Your task to perform on an android device: Open Android settings Image 0: 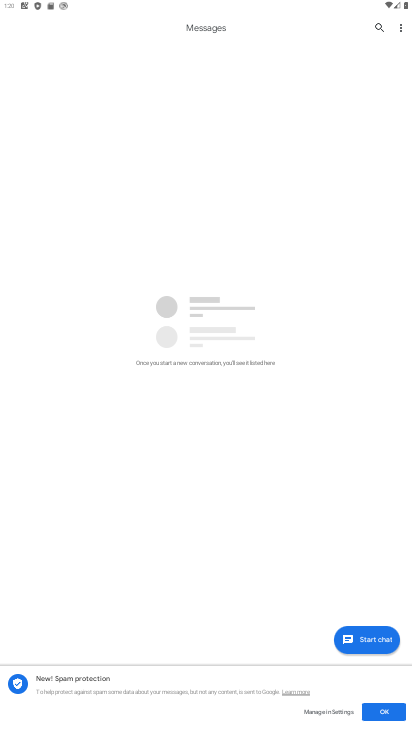
Step 0: press home button
Your task to perform on an android device: Open Android settings Image 1: 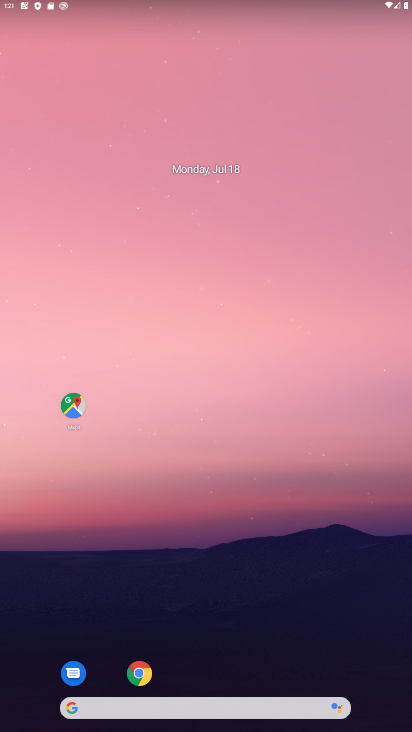
Step 1: drag from (393, 713) to (301, 10)
Your task to perform on an android device: Open Android settings Image 2: 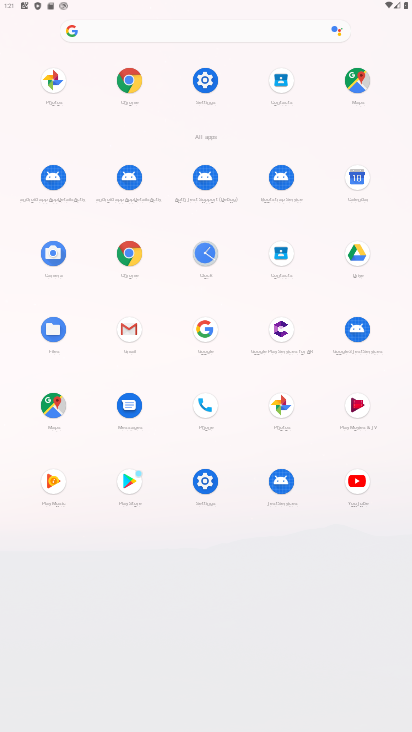
Step 2: drag from (203, 79) to (151, 354)
Your task to perform on an android device: Open Android settings Image 3: 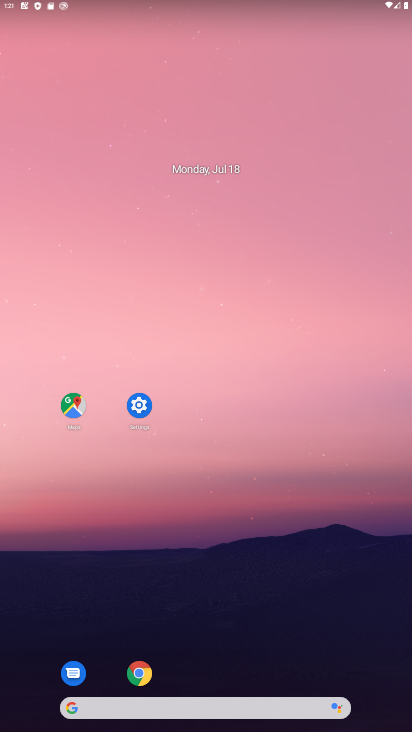
Step 3: click (128, 411)
Your task to perform on an android device: Open Android settings Image 4: 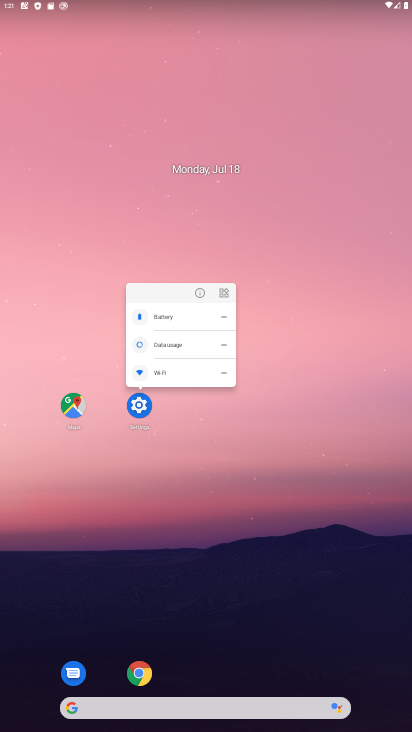
Step 4: click (130, 404)
Your task to perform on an android device: Open Android settings Image 5: 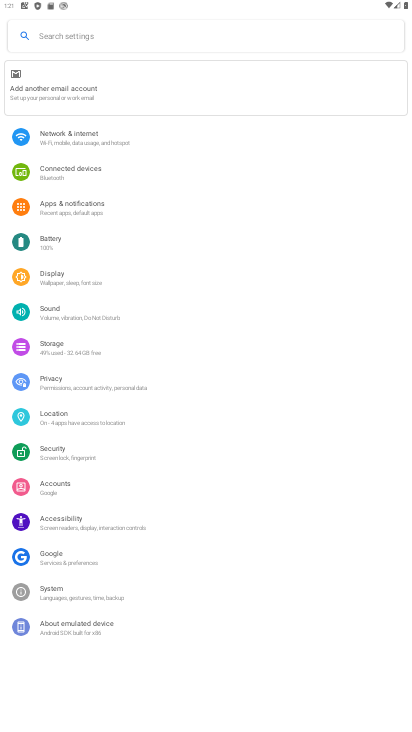
Step 5: task complete